Your task to perform on an android device: Do I have any events tomorrow? Image 0: 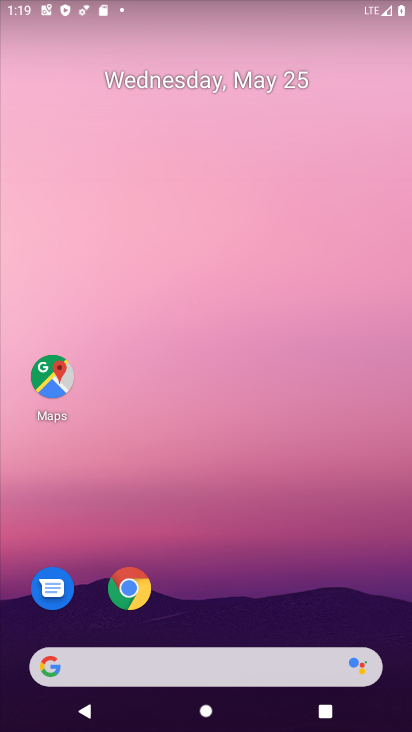
Step 0: drag from (325, 634) to (292, 3)
Your task to perform on an android device: Do I have any events tomorrow? Image 1: 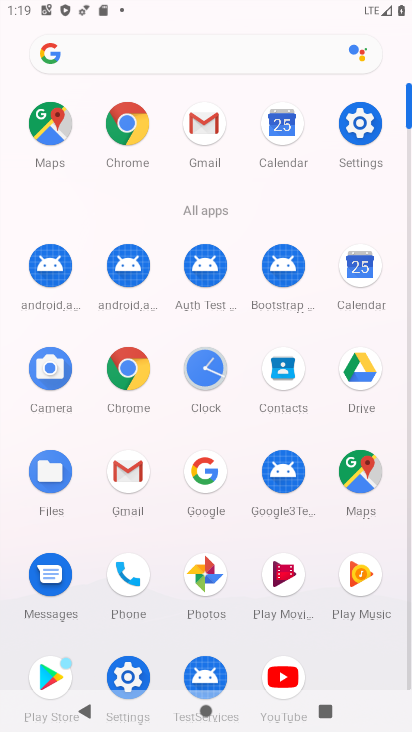
Step 1: click (286, 129)
Your task to perform on an android device: Do I have any events tomorrow? Image 2: 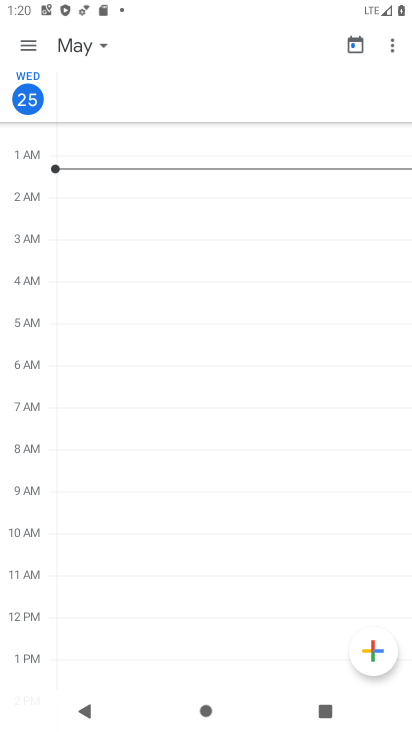
Step 2: click (26, 47)
Your task to perform on an android device: Do I have any events tomorrow? Image 3: 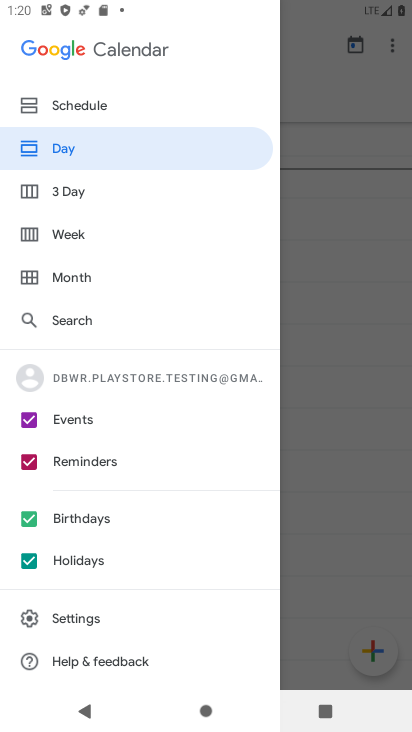
Step 3: click (87, 95)
Your task to perform on an android device: Do I have any events tomorrow? Image 4: 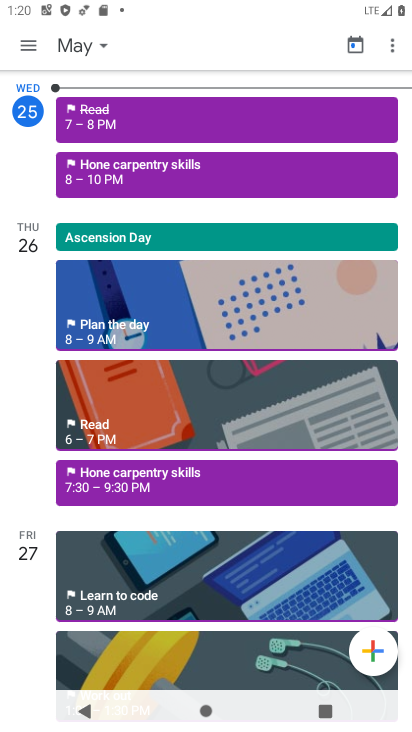
Step 4: click (158, 483)
Your task to perform on an android device: Do I have any events tomorrow? Image 5: 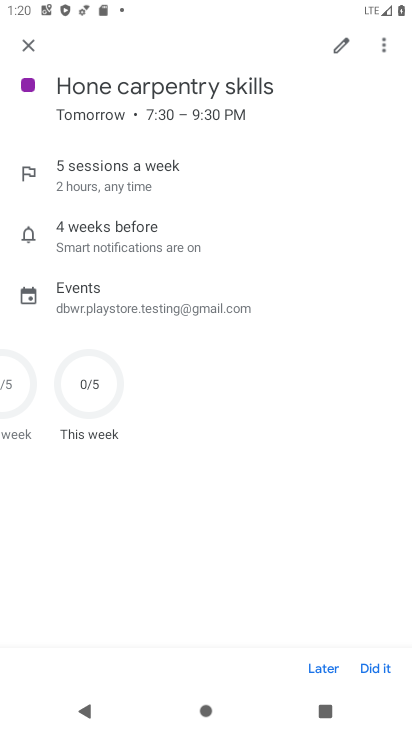
Step 5: task complete